Your task to perform on an android device: Open settings Image 0: 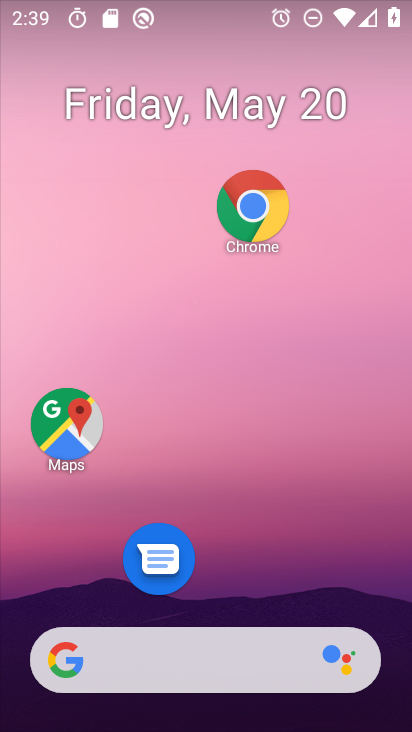
Step 0: drag from (289, 602) to (96, 12)
Your task to perform on an android device: Open settings Image 1: 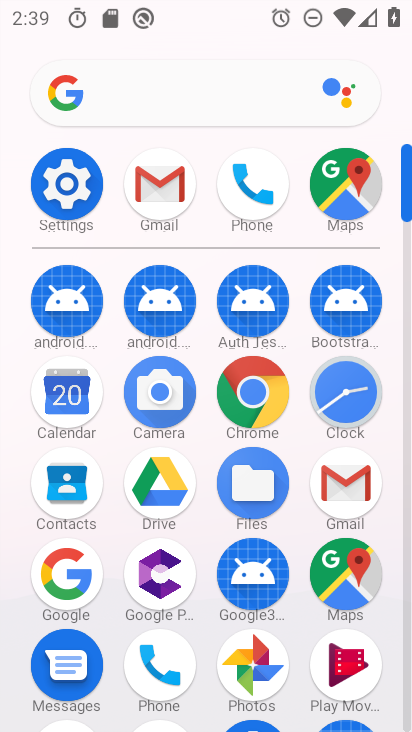
Step 1: click (82, 169)
Your task to perform on an android device: Open settings Image 2: 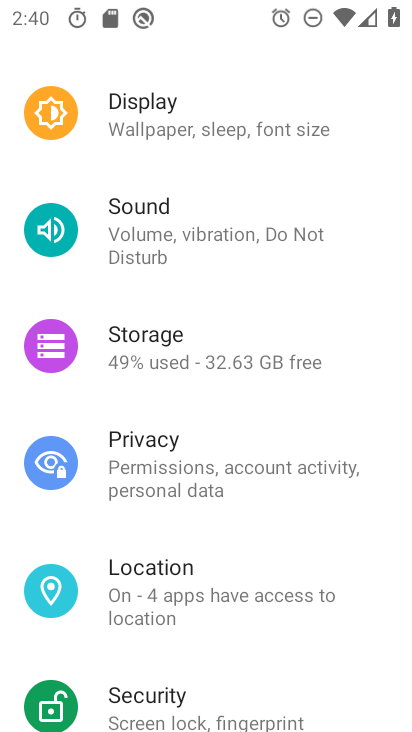
Step 2: task complete